Your task to perform on an android device: Open internet settings Image 0: 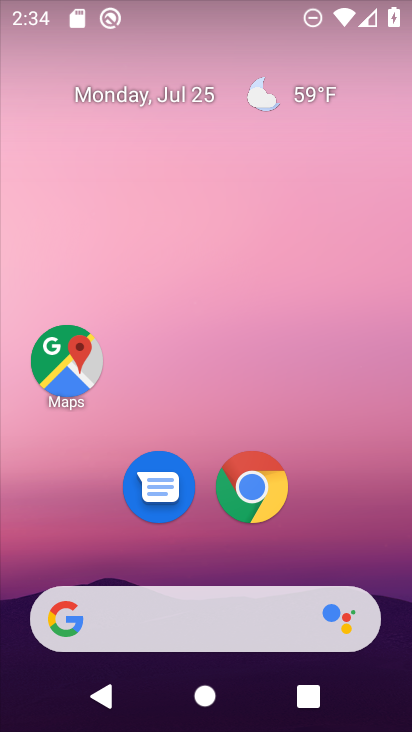
Step 0: drag from (91, 577) to (262, 4)
Your task to perform on an android device: Open internet settings Image 1: 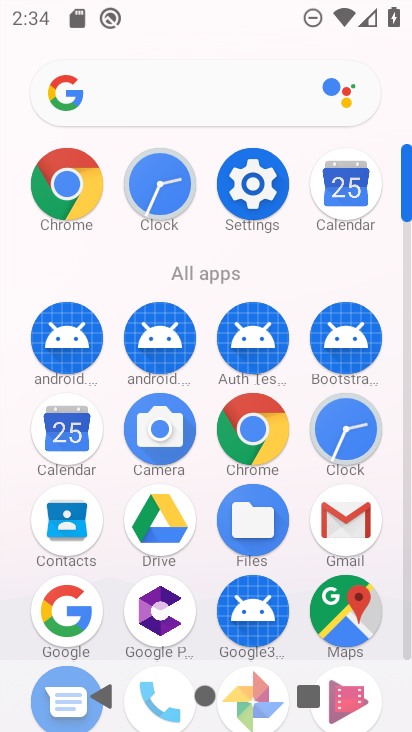
Step 1: click (267, 150)
Your task to perform on an android device: Open internet settings Image 2: 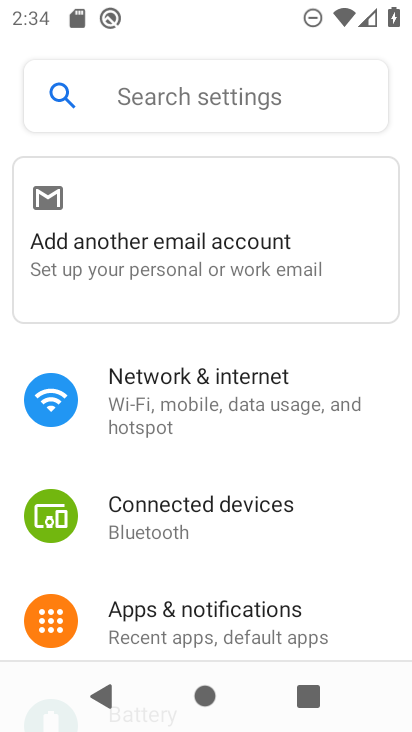
Step 2: click (245, 378)
Your task to perform on an android device: Open internet settings Image 3: 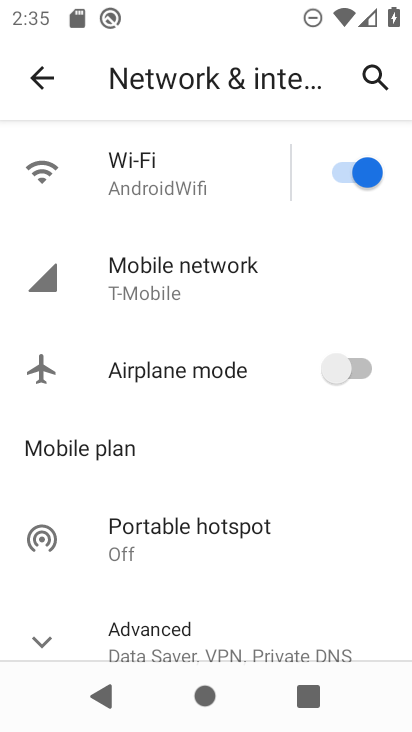
Step 3: task complete